Your task to perform on an android device: turn on bluetooth scan Image 0: 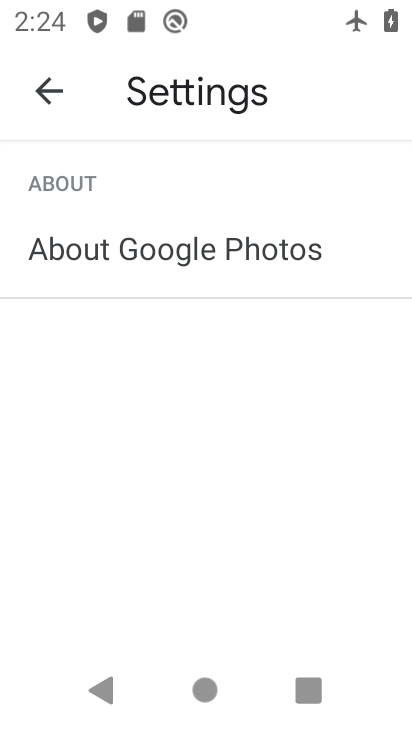
Step 0: press home button
Your task to perform on an android device: turn on bluetooth scan Image 1: 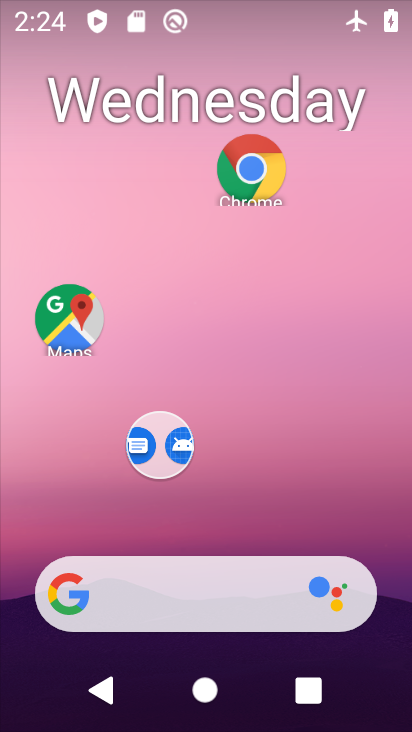
Step 1: drag from (212, 539) to (227, 133)
Your task to perform on an android device: turn on bluetooth scan Image 2: 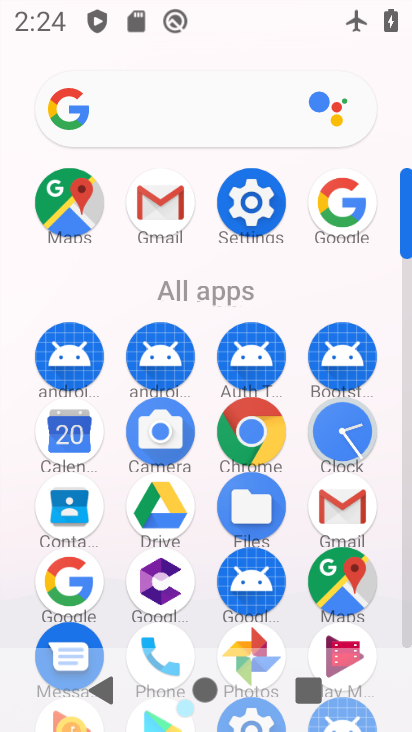
Step 2: click (257, 195)
Your task to perform on an android device: turn on bluetooth scan Image 3: 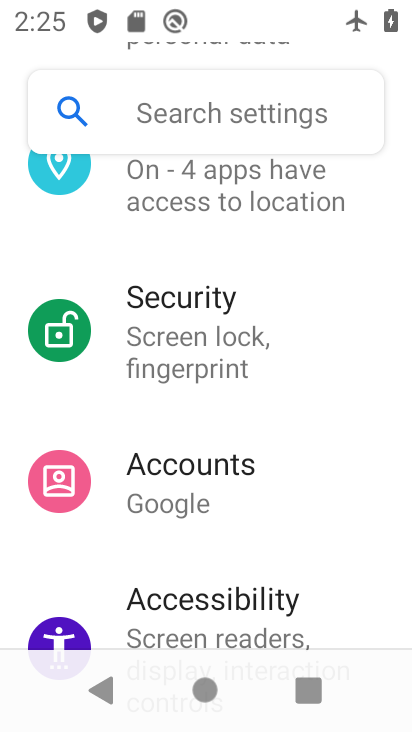
Step 3: click (225, 179)
Your task to perform on an android device: turn on bluetooth scan Image 4: 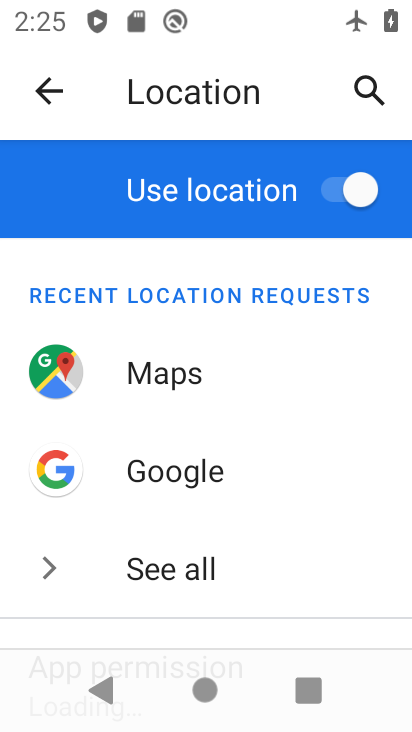
Step 4: drag from (236, 494) to (177, 212)
Your task to perform on an android device: turn on bluetooth scan Image 5: 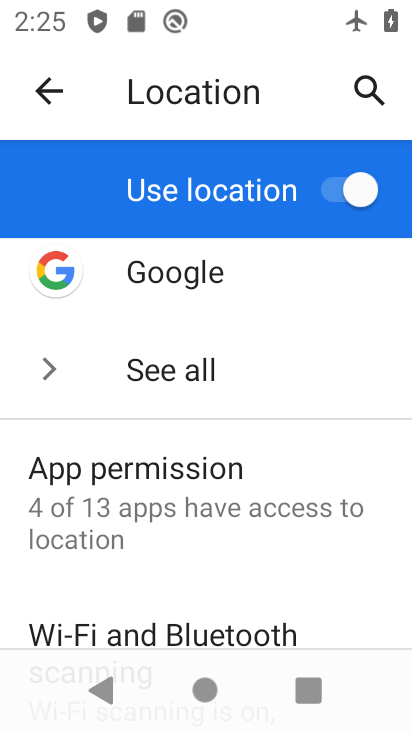
Step 5: click (175, 610)
Your task to perform on an android device: turn on bluetooth scan Image 6: 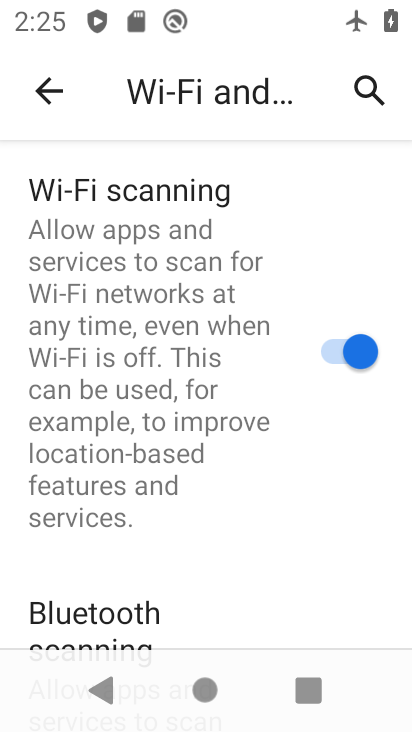
Step 6: click (85, 620)
Your task to perform on an android device: turn on bluetooth scan Image 7: 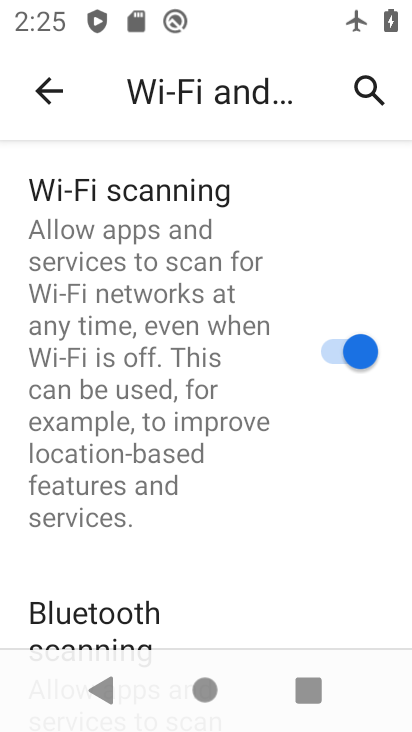
Step 7: task complete